Your task to perform on an android device: Search for "alienware area 51" on walmart, select the first entry, and add it to the cart. Image 0: 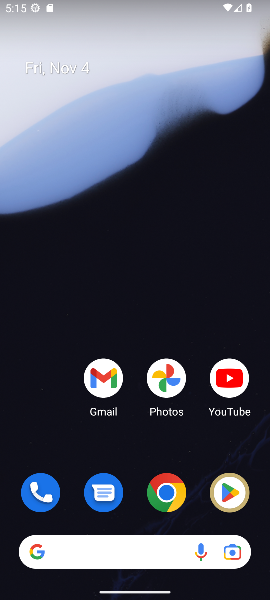
Step 0: click (191, 13)
Your task to perform on an android device: Search for "alienware area 51" on walmart, select the first entry, and add it to the cart. Image 1: 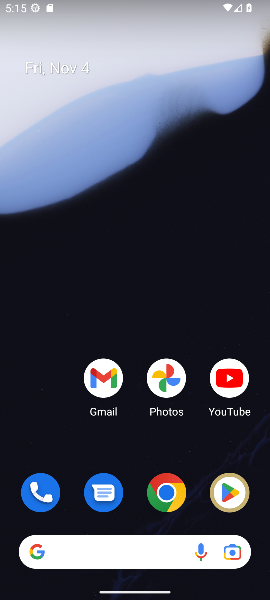
Step 1: drag from (126, 458) to (121, 77)
Your task to perform on an android device: Search for "alienware area 51" on walmart, select the first entry, and add it to the cart. Image 2: 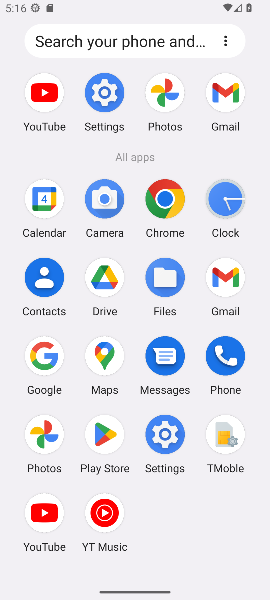
Step 2: click (169, 197)
Your task to perform on an android device: Search for "alienware area 51" on walmart, select the first entry, and add it to the cart. Image 3: 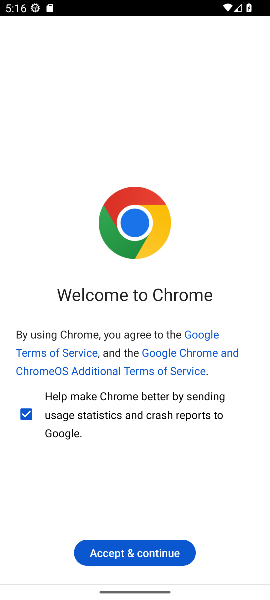
Step 3: click (155, 548)
Your task to perform on an android device: Search for "alienware area 51" on walmart, select the first entry, and add it to the cart. Image 4: 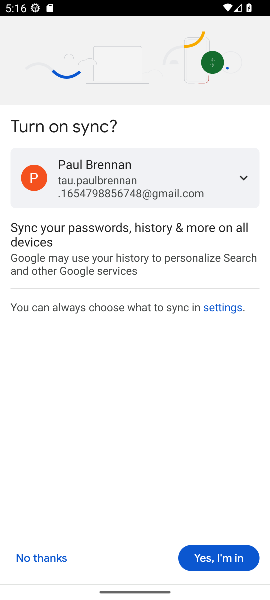
Step 4: click (209, 557)
Your task to perform on an android device: Search for "alienware area 51" on walmart, select the first entry, and add it to the cart. Image 5: 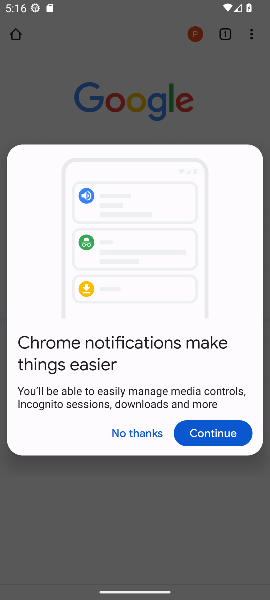
Step 5: click (138, 435)
Your task to perform on an android device: Search for "alienware area 51" on walmart, select the first entry, and add it to the cart. Image 6: 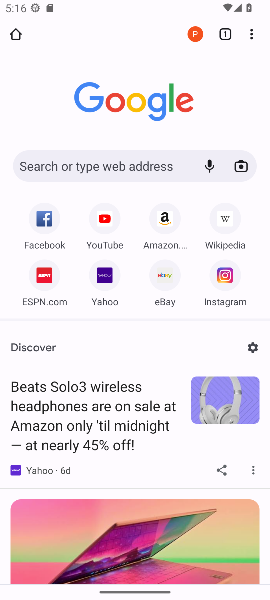
Step 6: click (129, 166)
Your task to perform on an android device: Search for "alienware area 51" on walmart, select the first entry, and add it to the cart. Image 7: 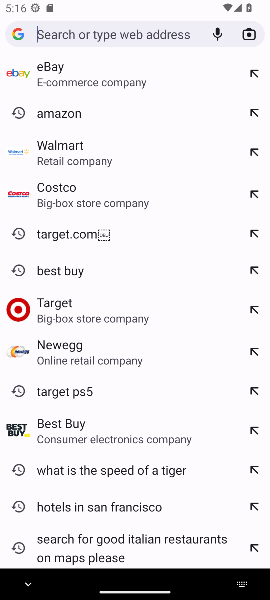
Step 7: type "walmart.com"
Your task to perform on an android device: Search for "alienware area 51" on walmart, select the first entry, and add it to the cart. Image 8: 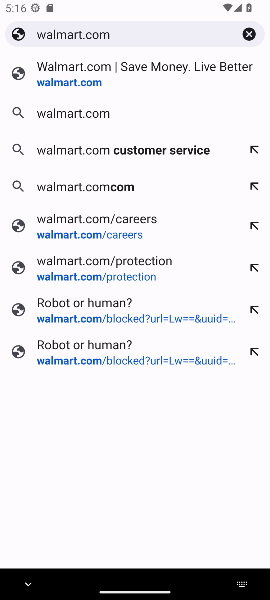
Step 8: press enter
Your task to perform on an android device: Search for "alienware area 51" on walmart, select the first entry, and add it to the cart. Image 9: 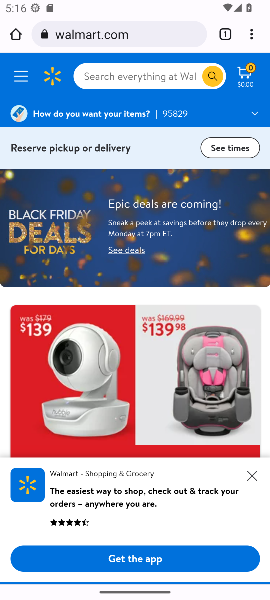
Step 9: click (137, 75)
Your task to perform on an android device: Search for "alienware area 51" on walmart, select the first entry, and add it to the cart. Image 10: 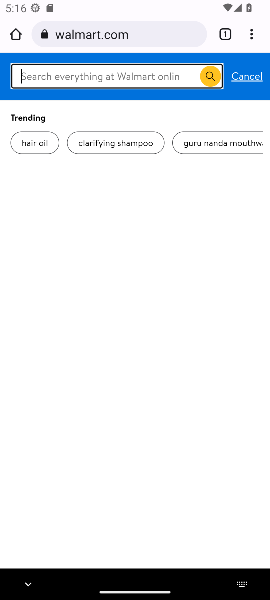
Step 10: type "alienware area 51"
Your task to perform on an android device: Search for "alienware area 51" on walmart, select the first entry, and add it to the cart. Image 11: 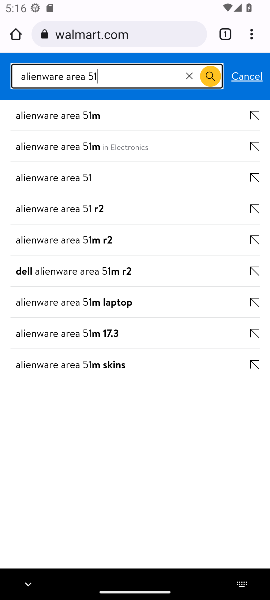
Step 11: press enter
Your task to perform on an android device: Search for "alienware area 51" on walmart, select the first entry, and add it to the cart. Image 12: 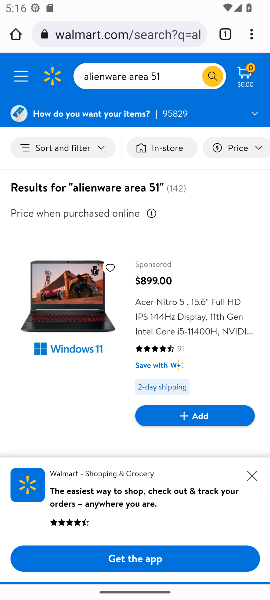
Step 12: drag from (161, 467) to (130, 121)
Your task to perform on an android device: Search for "alienware area 51" on walmart, select the first entry, and add it to the cart. Image 13: 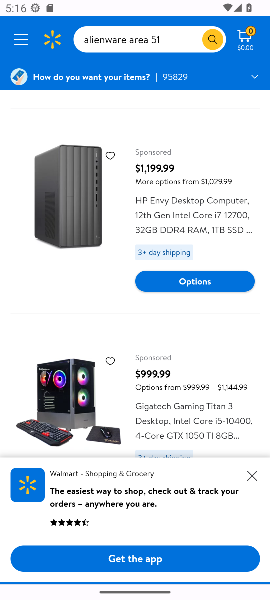
Step 13: drag from (138, 410) to (151, 163)
Your task to perform on an android device: Search for "alienware area 51" on walmart, select the first entry, and add it to the cart. Image 14: 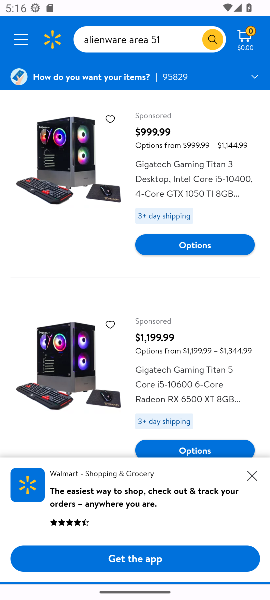
Step 14: drag from (137, 386) to (171, 186)
Your task to perform on an android device: Search for "alienware area 51" on walmart, select the first entry, and add it to the cart. Image 15: 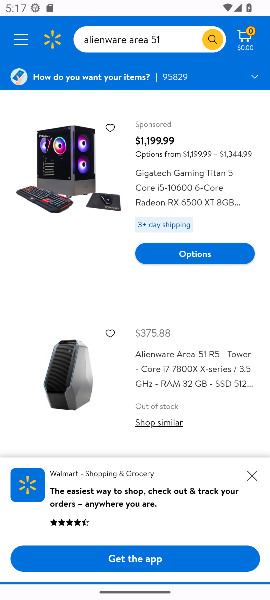
Step 15: drag from (179, 432) to (207, 272)
Your task to perform on an android device: Search for "alienware area 51" on walmart, select the first entry, and add it to the cart. Image 16: 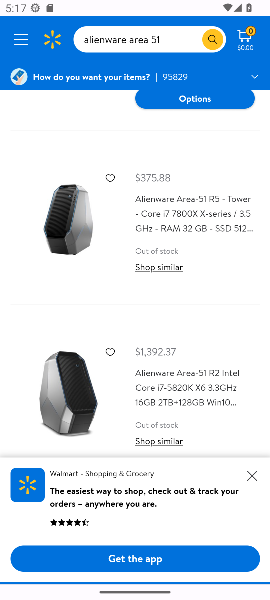
Step 16: drag from (152, 190) to (133, 391)
Your task to perform on an android device: Search for "alienware area 51" on walmart, select the first entry, and add it to the cart. Image 17: 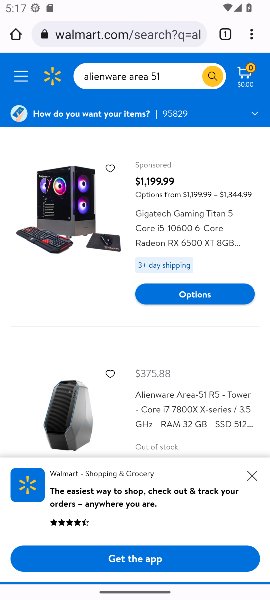
Step 17: click (177, 407)
Your task to perform on an android device: Search for "alienware area 51" on walmart, select the first entry, and add it to the cart. Image 18: 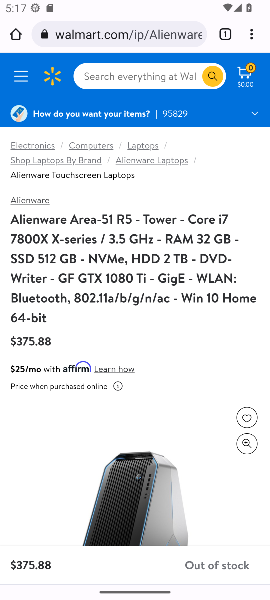
Step 18: task complete